Your task to perform on an android device: check battery use Image 0: 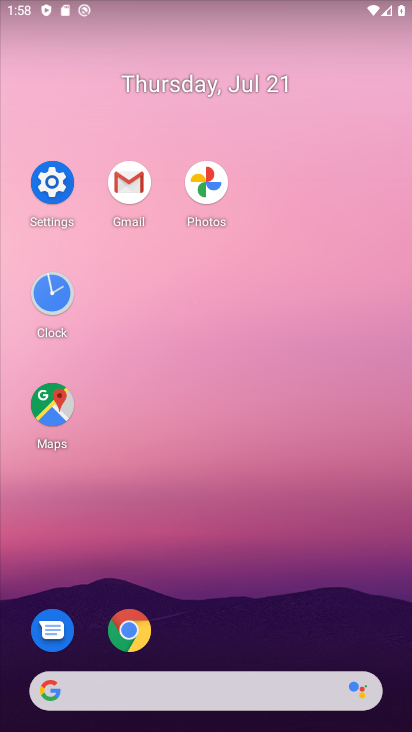
Step 0: click (47, 181)
Your task to perform on an android device: check battery use Image 1: 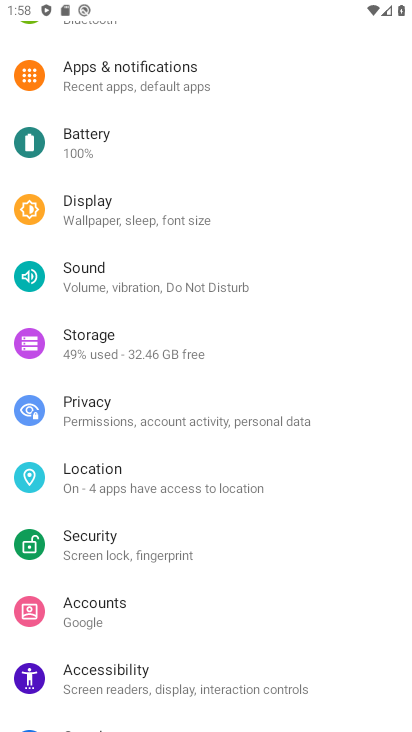
Step 1: click (119, 153)
Your task to perform on an android device: check battery use Image 2: 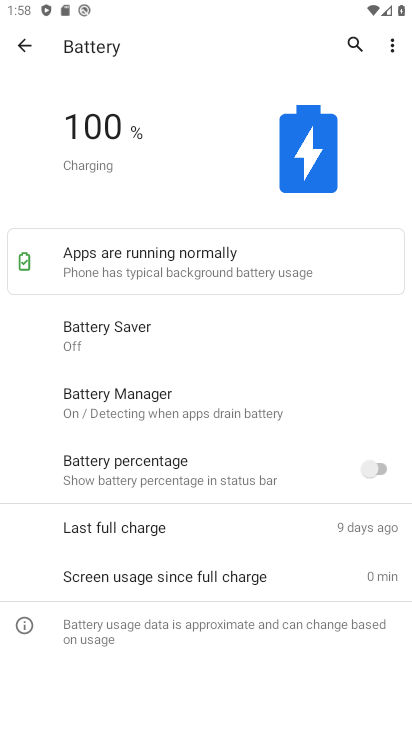
Step 2: click (389, 34)
Your task to perform on an android device: check battery use Image 3: 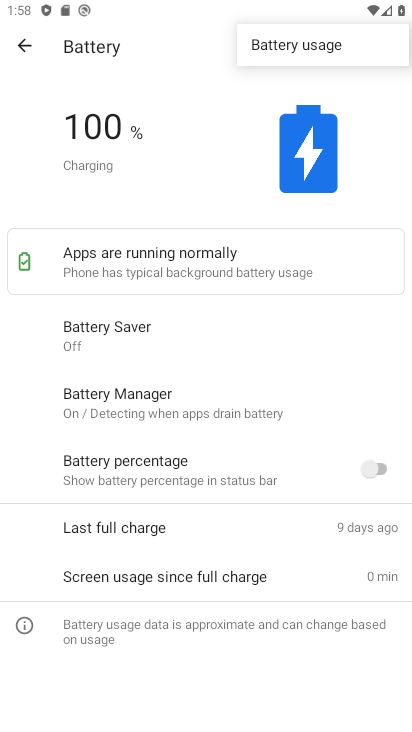
Step 3: click (335, 46)
Your task to perform on an android device: check battery use Image 4: 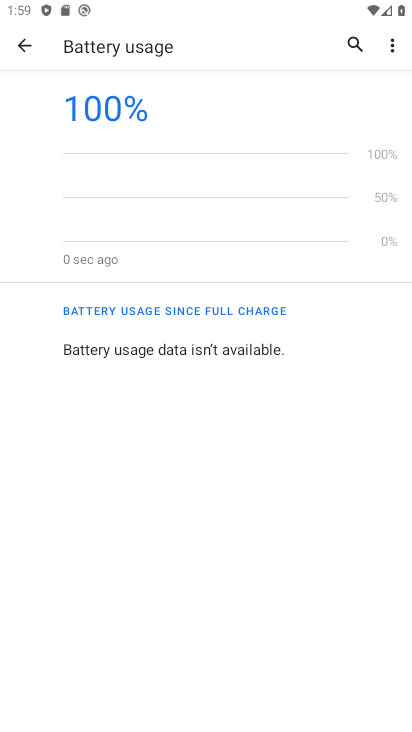
Step 4: task complete